Your task to perform on an android device: open a new tab in the chrome app Image 0: 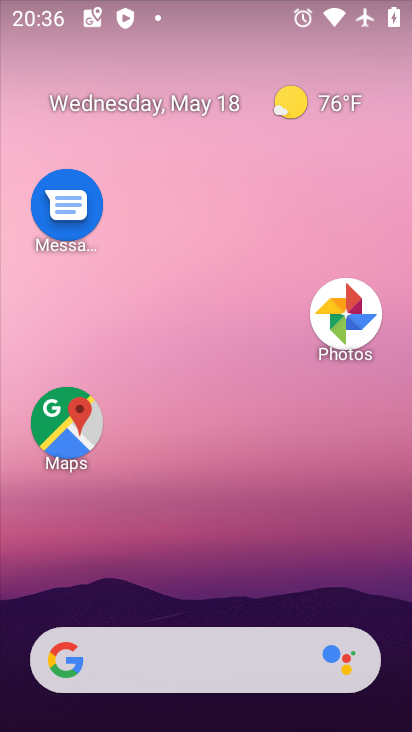
Step 0: drag from (225, 625) to (169, 25)
Your task to perform on an android device: open a new tab in the chrome app Image 1: 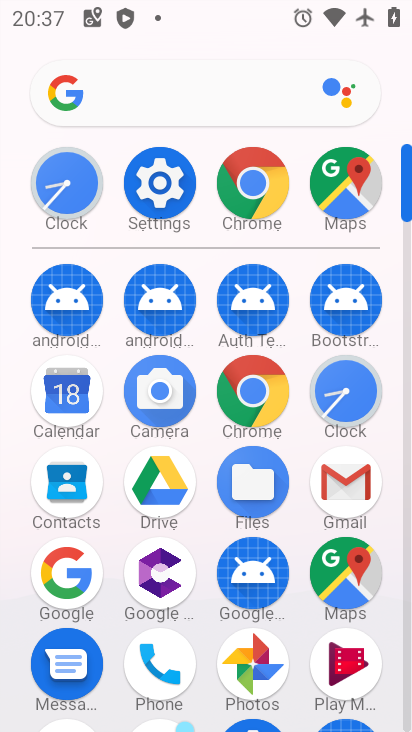
Step 1: click (268, 385)
Your task to perform on an android device: open a new tab in the chrome app Image 2: 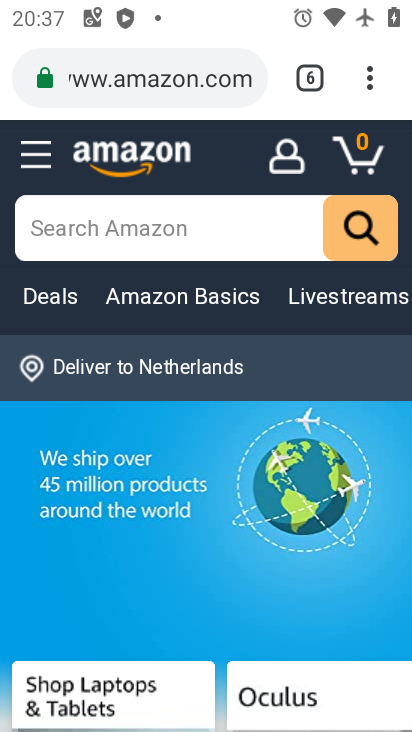
Step 2: click (318, 97)
Your task to perform on an android device: open a new tab in the chrome app Image 3: 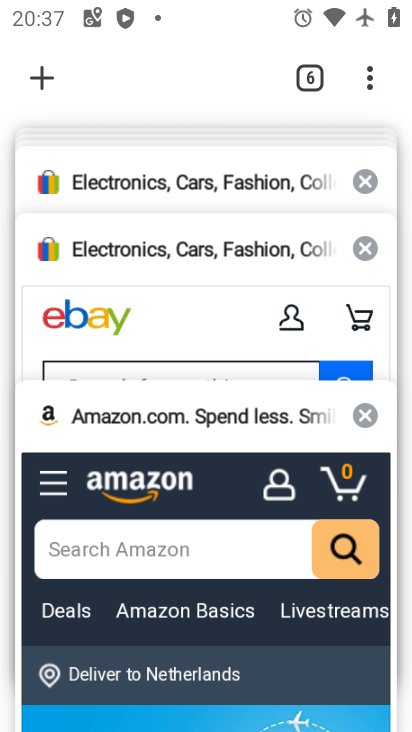
Step 3: click (47, 84)
Your task to perform on an android device: open a new tab in the chrome app Image 4: 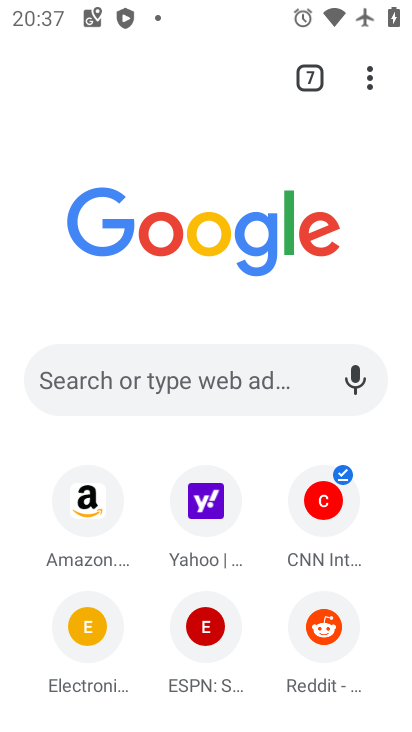
Step 4: task complete